Your task to perform on an android device: Go to sound settings Image 0: 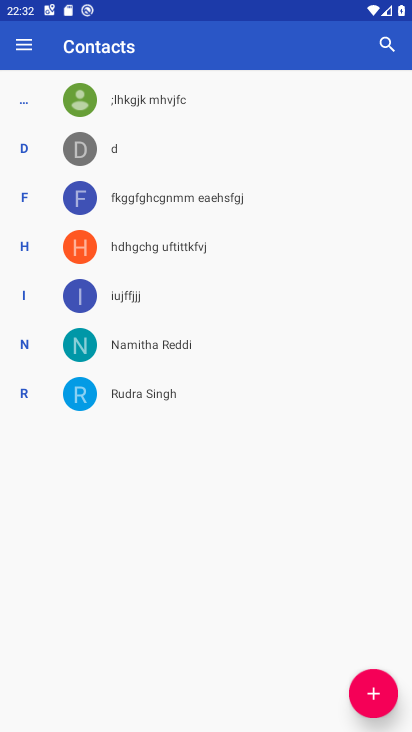
Step 0: press home button
Your task to perform on an android device: Go to sound settings Image 1: 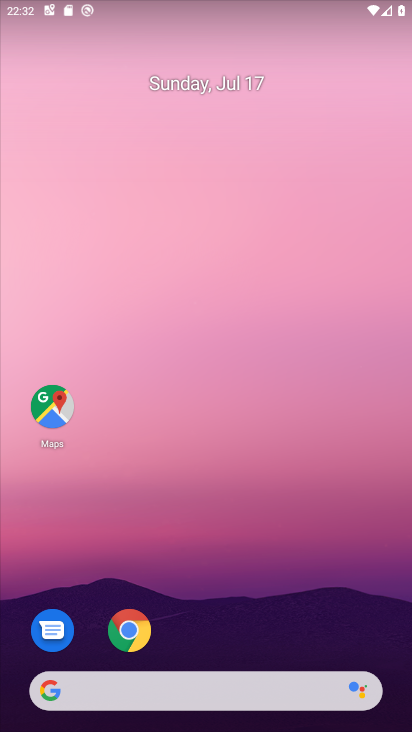
Step 1: drag from (248, 640) to (249, 120)
Your task to perform on an android device: Go to sound settings Image 2: 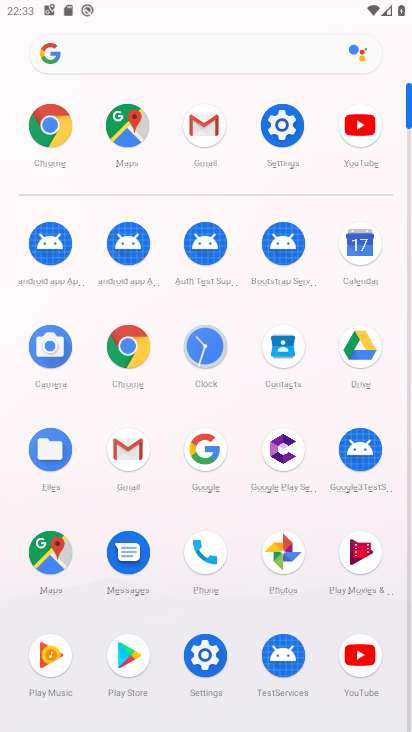
Step 2: click (201, 668)
Your task to perform on an android device: Go to sound settings Image 3: 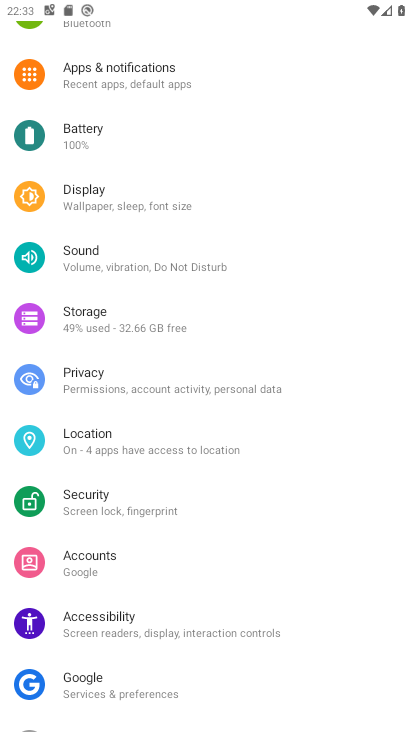
Step 3: click (126, 261)
Your task to perform on an android device: Go to sound settings Image 4: 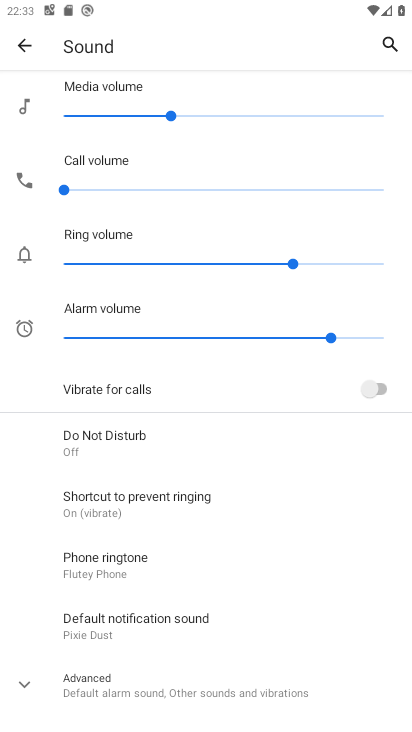
Step 4: task complete